Your task to perform on an android device: read, delete, or share a saved page in the chrome app Image 0: 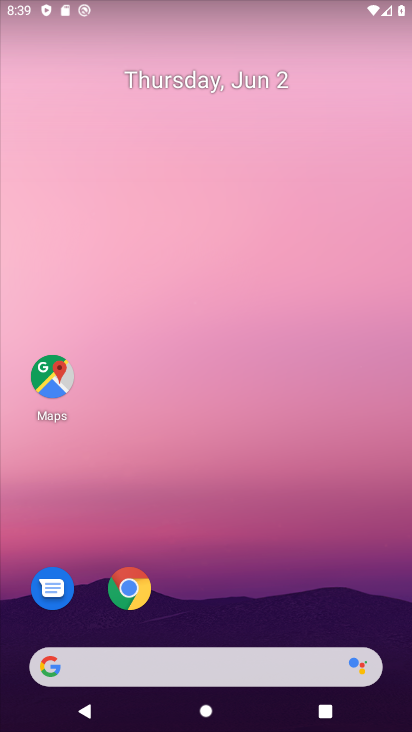
Step 0: click (123, 584)
Your task to perform on an android device: read, delete, or share a saved page in the chrome app Image 1: 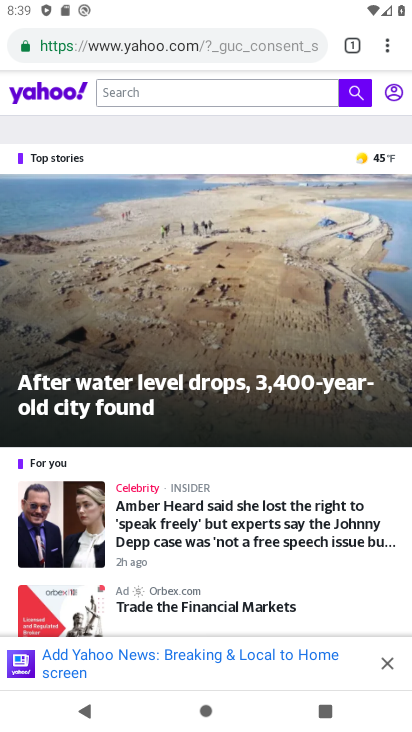
Step 1: click (392, 43)
Your task to perform on an android device: read, delete, or share a saved page in the chrome app Image 2: 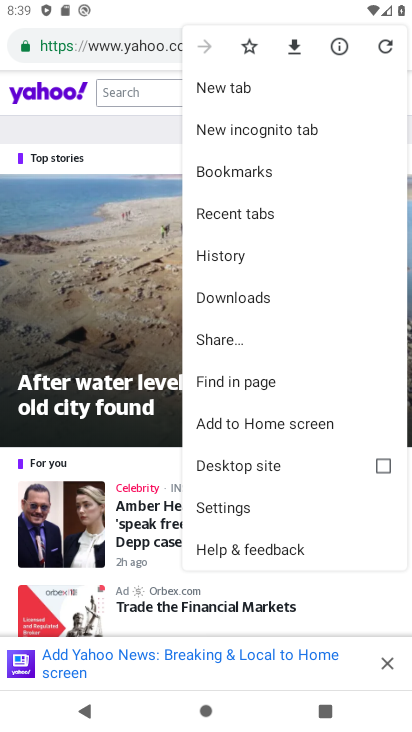
Step 2: click (287, 298)
Your task to perform on an android device: read, delete, or share a saved page in the chrome app Image 3: 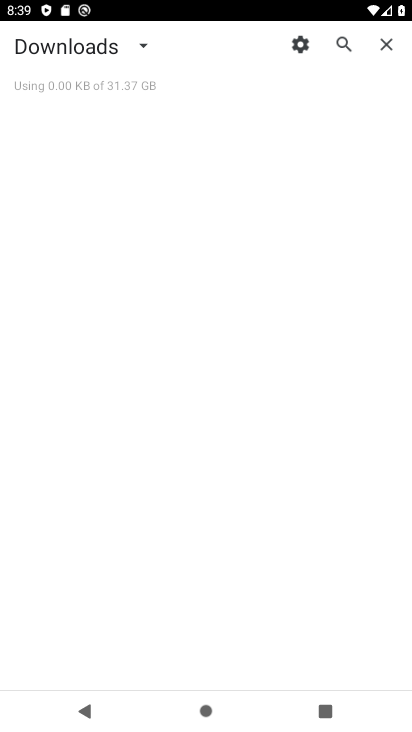
Step 3: task complete